Your task to perform on an android device: Open battery settings Image 0: 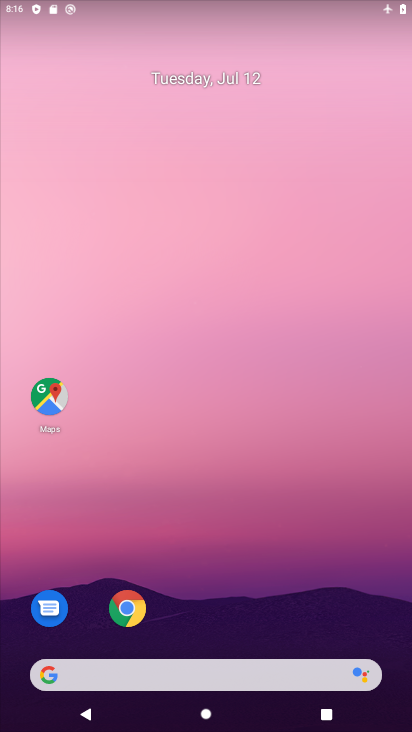
Step 0: drag from (183, 460) to (148, 17)
Your task to perform on an android device: Open battery settings Image 1: 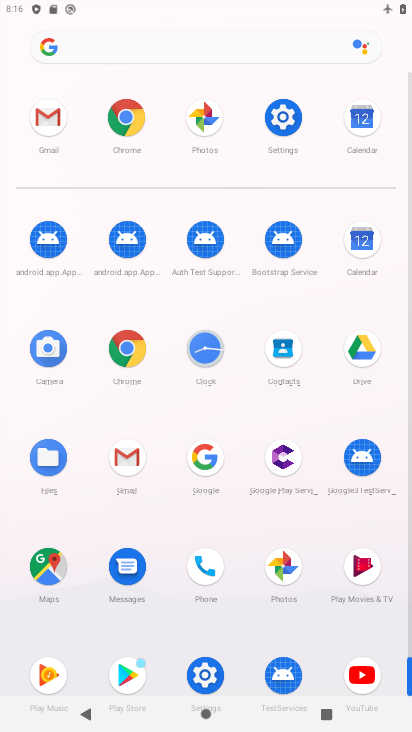
Step 1: click (288, 129)
Your task to perform on an android device: Open battery settings Image 2: 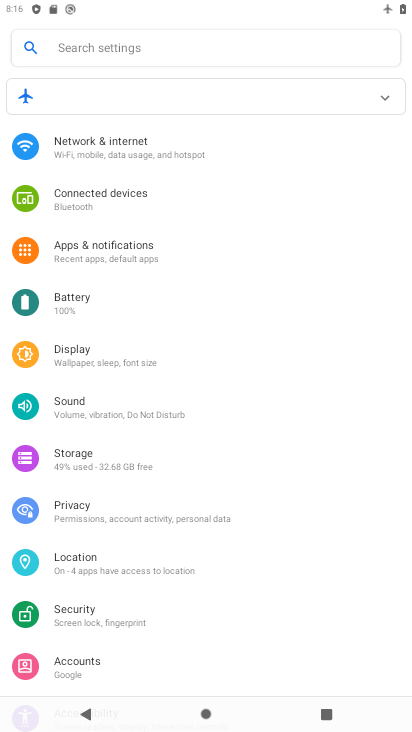
Step 2: click (82, 301)
Your task to perform on an android device: Open battery settings Image 3: 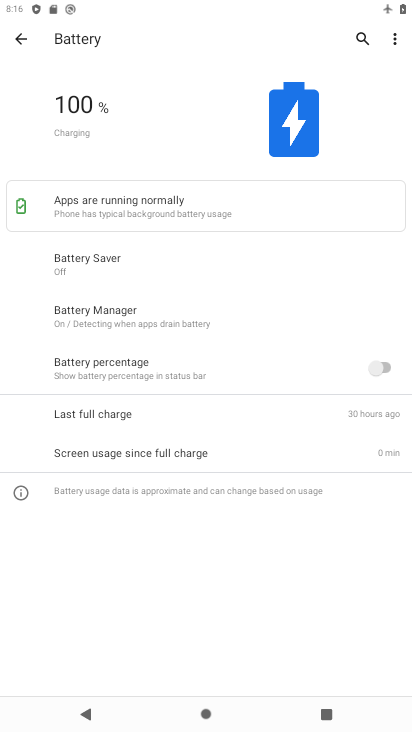
Step 3: task complete